Your task to perform on an android device: Open ESPN.com Image 0: 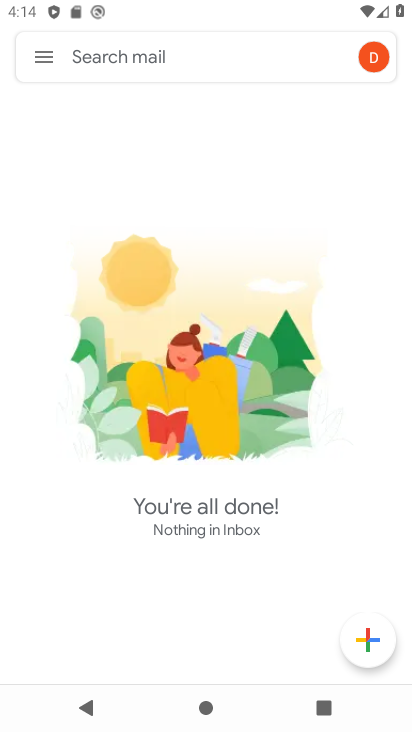
Step 0: press home button
Your task to perform on an android device: Open ESPN.com Image 1: 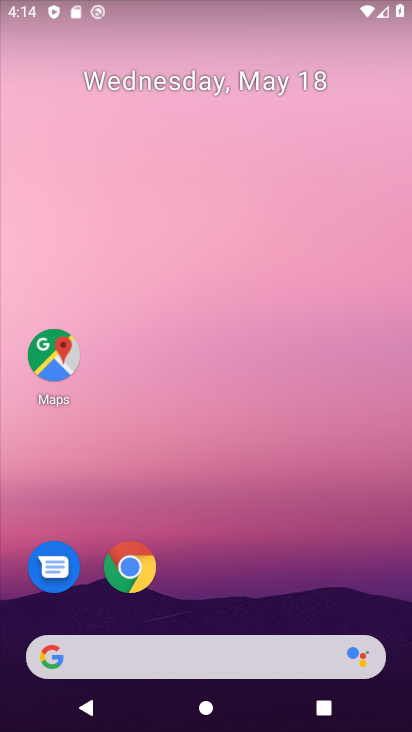
Step 1: click (128, 567)
Your task to perform on an android device: Open ESPN.com Image 2: 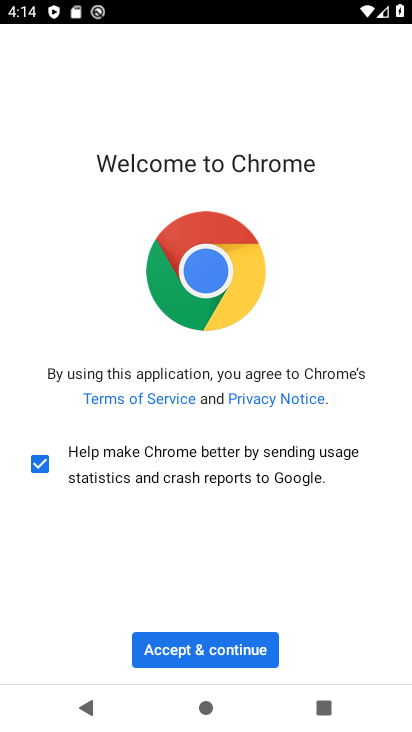
Step 2: click (183, 659)
Your task to perform on an android device: Open ESPN.com Image 3: 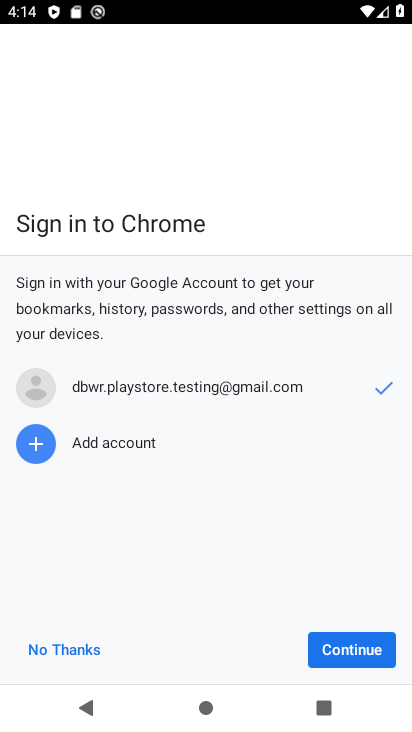
Step 3: click (334, 651)
Your task to perform on an android device: Open ESPN.com Image 4: 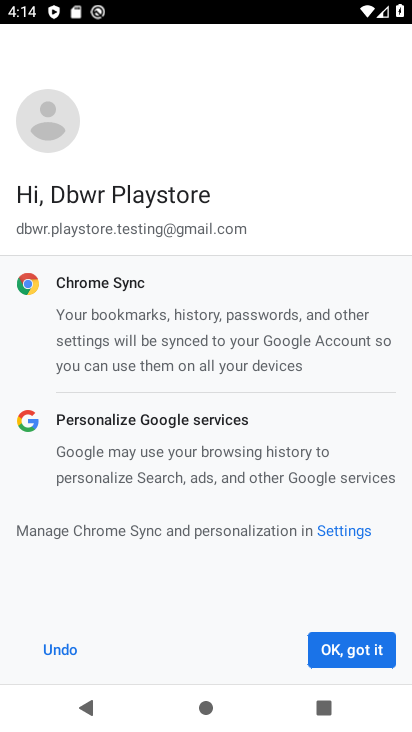
Step 4: click (341, 652)
Your task to perform on an android device: Open ESPN.com Image 5: 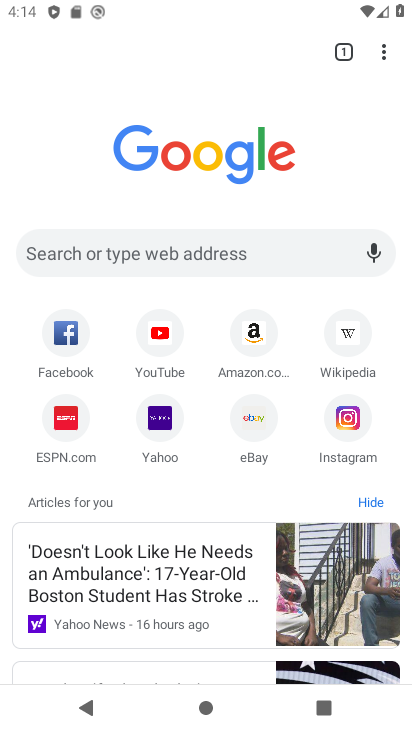
Step 5: click (58, 427)
Your task to perform on an android device: Open ESPN.com Image 6: 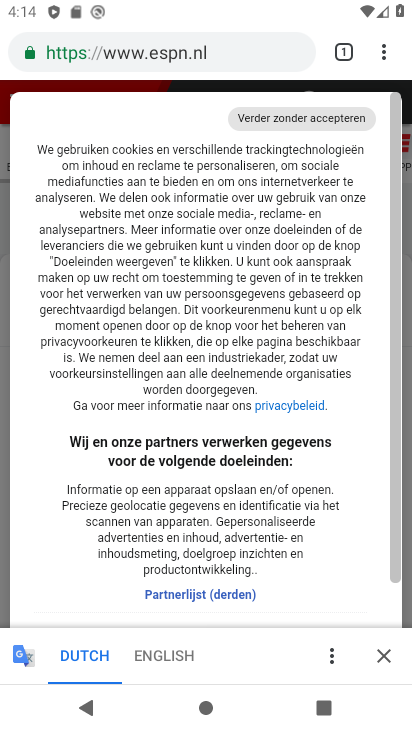
Step 6: drag from (186, 589) to (191, 115)
Your task to perform on an android device: Open ESPN.com Image 7: 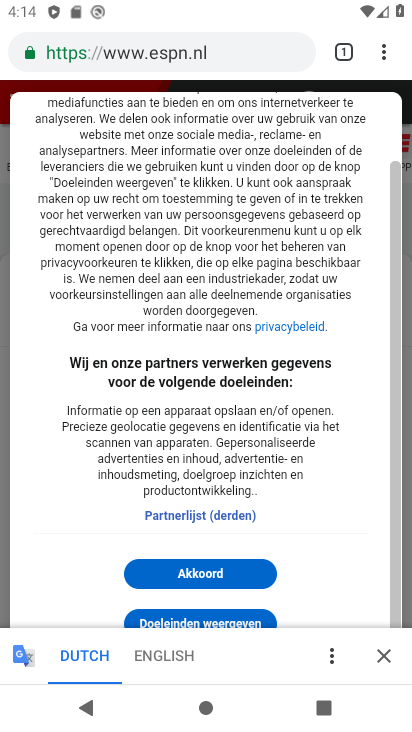
Step 7: click (383, 659)
Your task to perform on an android device: Open ESPN.com Image 8: 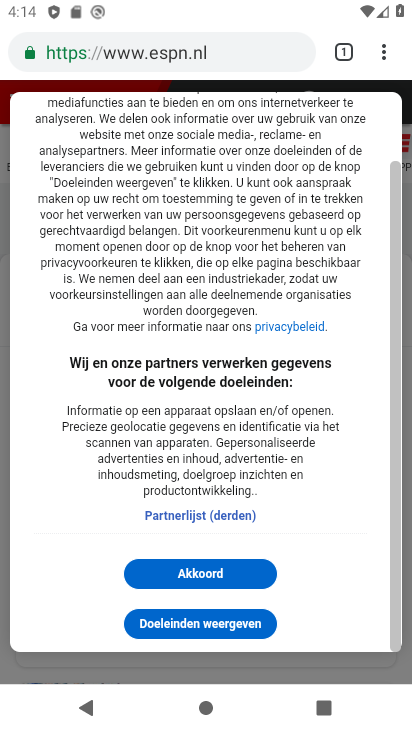
Step 8: task complete